Your task to perform on an android device: Open calendar and show me the second week of next month Image 0: 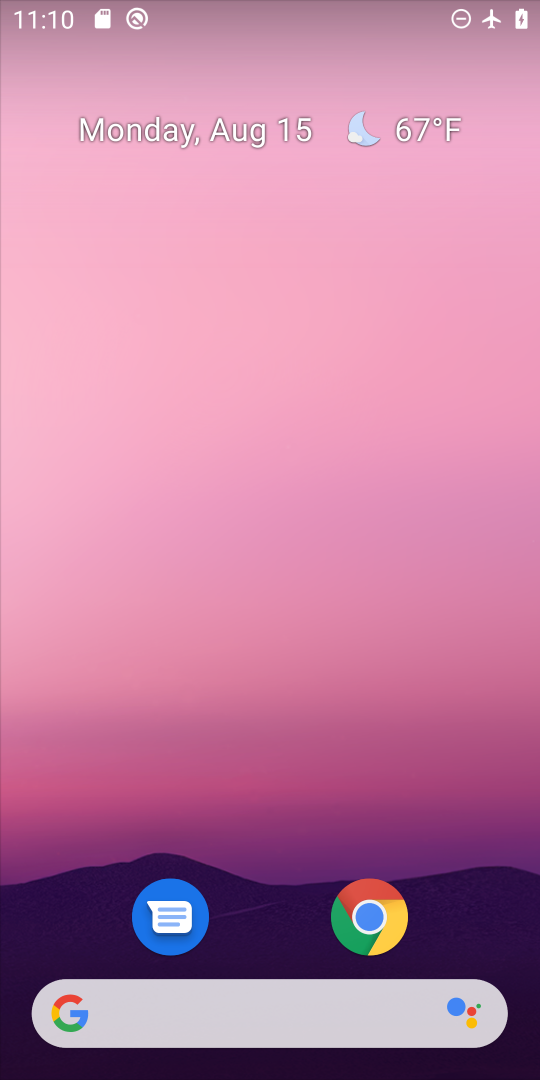
Step 0: drag from (266, 813) to (263, 13)
Your task to perform on an android device: Open calendar and show me the second week of next month Image 1: 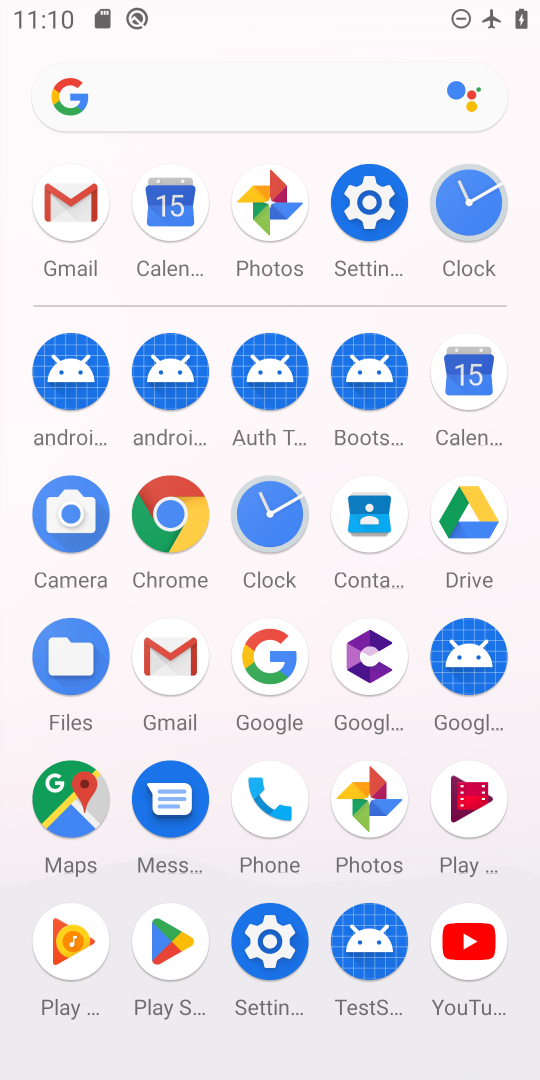
Step 1: click (170, 194)
Your task to perform on an android device: Open calendar and show me the second week of next month Image 2: 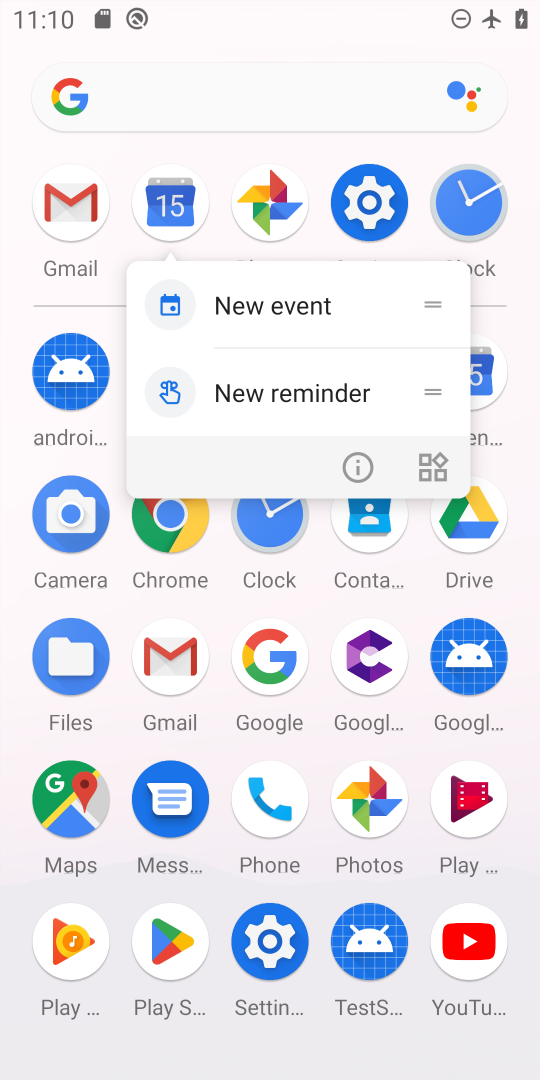
Step 2: click (170, 194)
Your task to perform on an android device: Open calendar and show me the second week of next month Image 3: 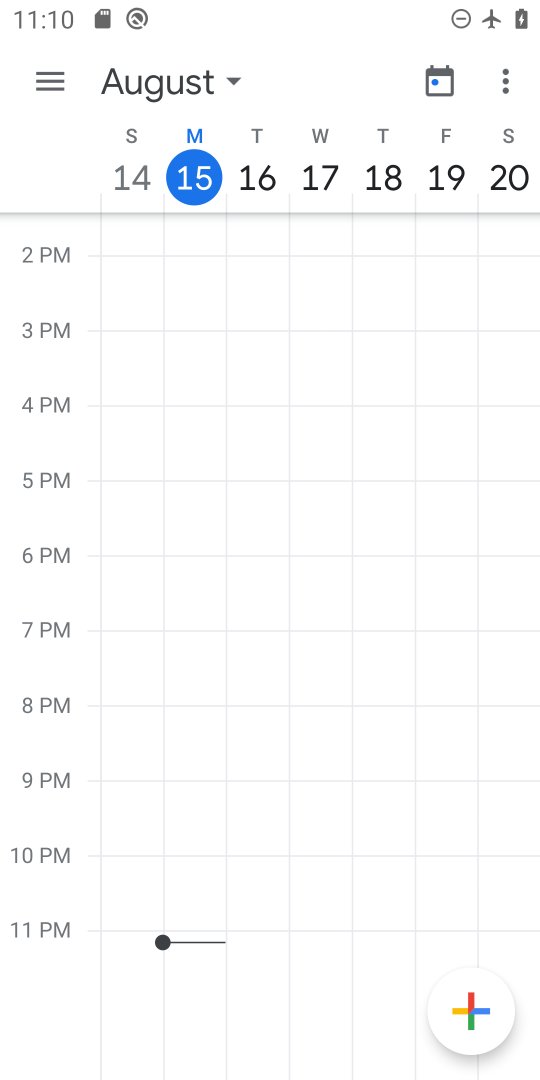
Step 3: click (59, 79)
Your task to perform on an android device: Open calendar and show me the second week of next month Image 4: 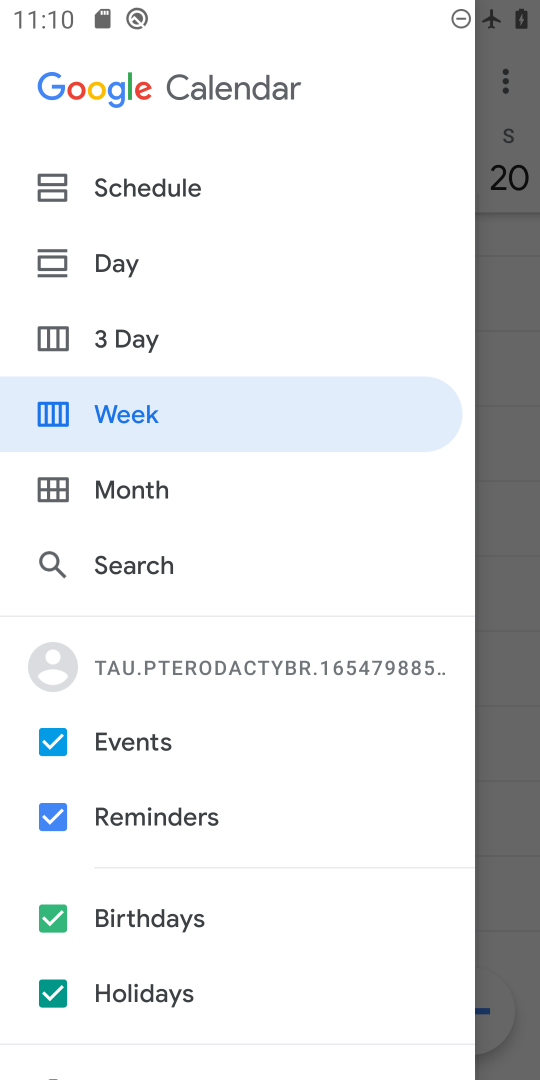
Step 4: click (117, 476)
Your task to perform on an android device: Open calendar and show me the second week of next month Image 5: 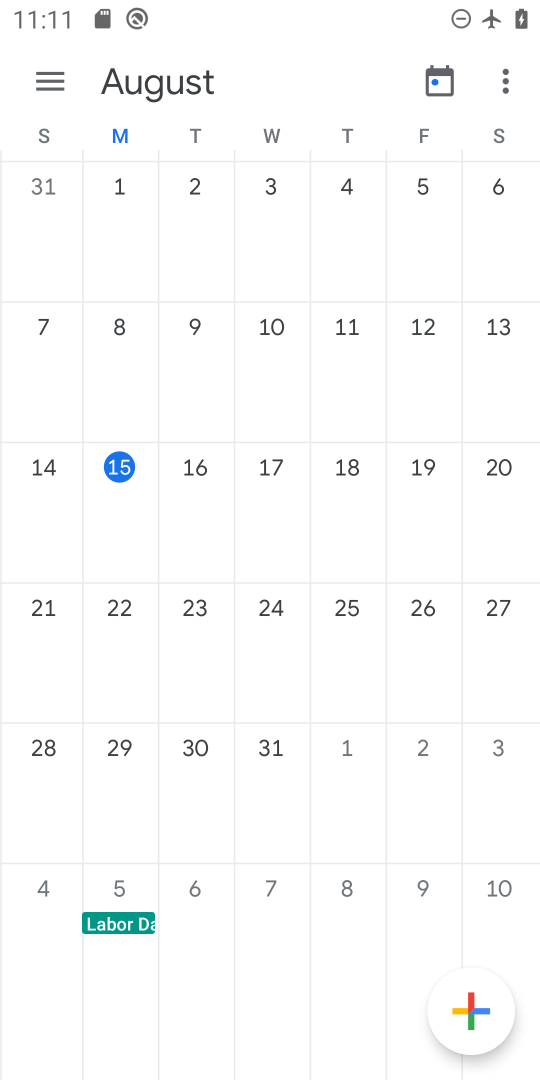
Step 5: drag from (489, 498) to (1, 445)
Your task to perform on an android device: Open calendar and show me the second week of next month Image 6: 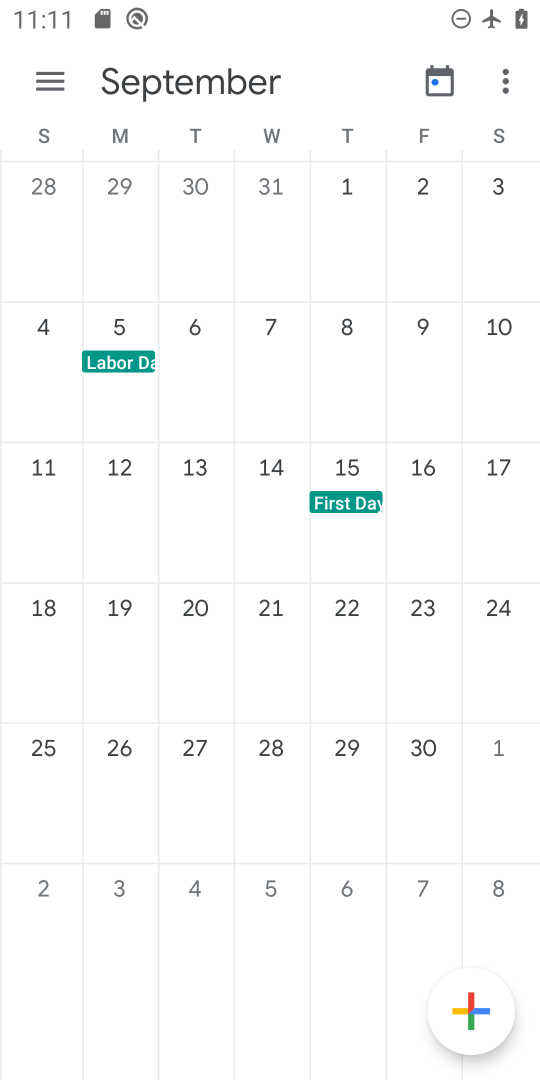
Step 6: click (46, 469)
Your task to perform on an android device: Open calendar and show me the second week of next month Image 7: 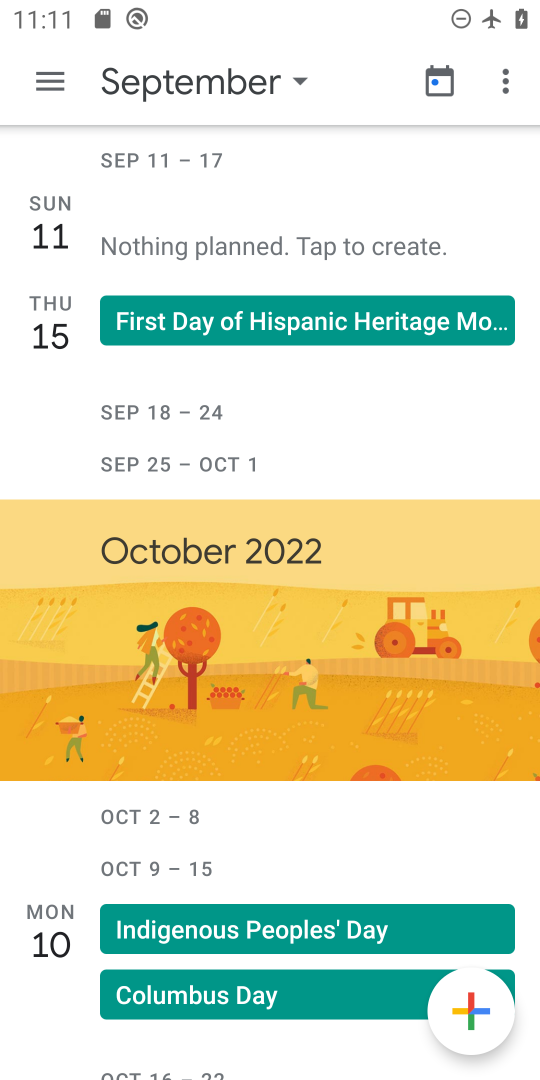
Step 7: click (53, 76)
Your task to perform on an android device: Open calendar and show me the second week of next month Image 8: 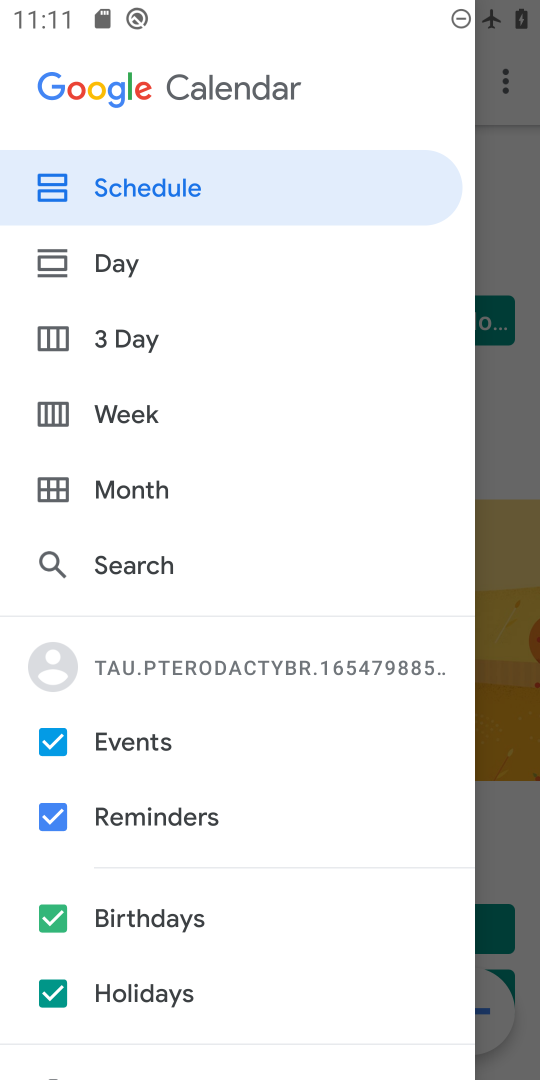
Step 8: click (59, 403)
Your task to perform on an android device: Open calendar and show me the second week of next month Image 9: 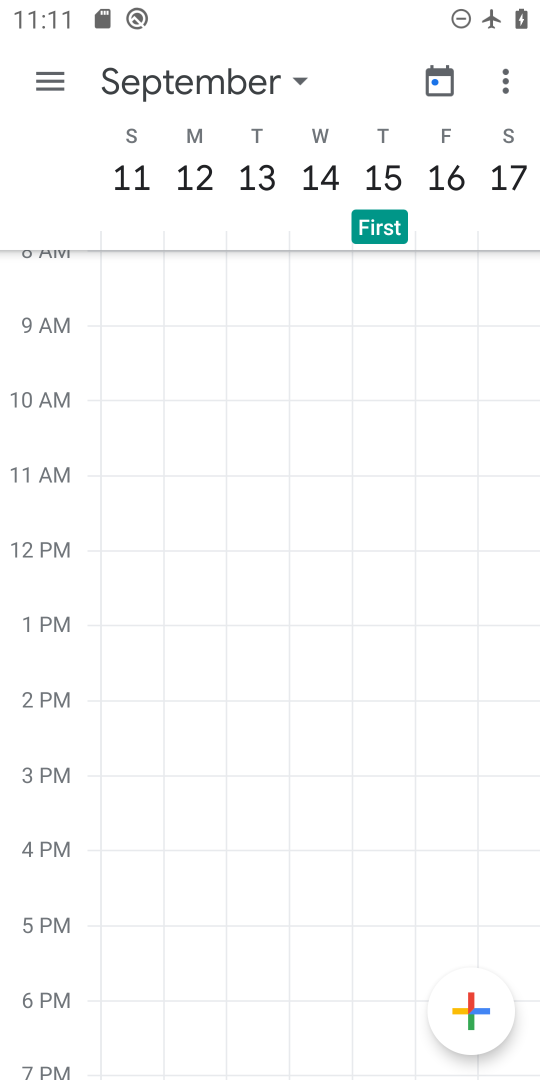
Step 9: task complete